Your task to perform on an android device: Open Google Maps and go to "Timeline" Image 0: 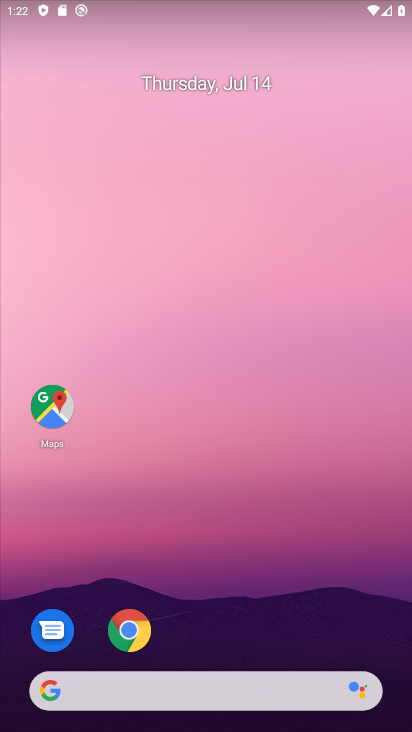
Step 0: click (32, 402)
Your task to perform on an android device: Open Google Maps and go to "Timeline" Image 1: 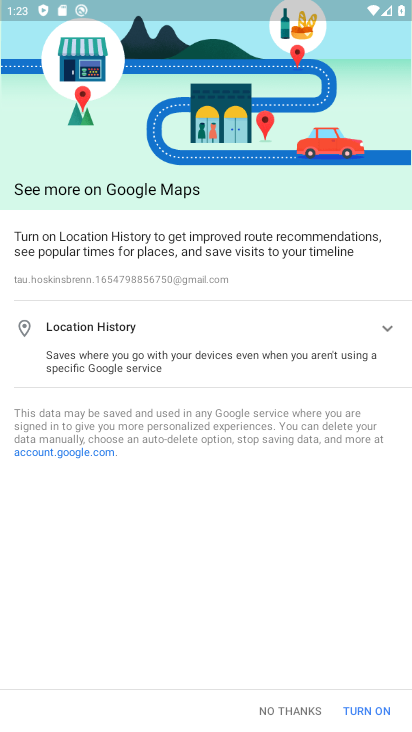
Step 1: click (275, 710)
Your task to perform on an android device: Open Google Maps and go to "Timeline" Image 2: 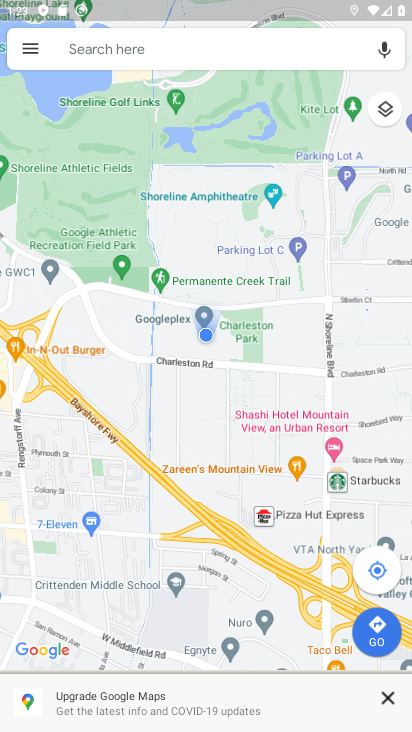
Step 2: click (25, 47)
Your task to perform on an android device: Open Google Maps and go to "Timeline" Image 3: 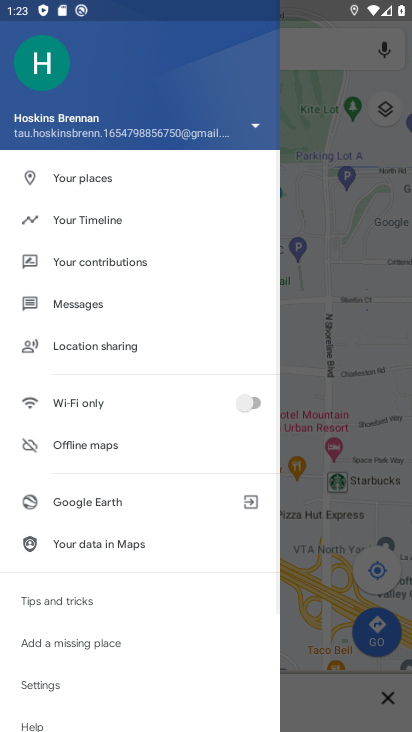
Step 3: click (106, 216)
Your task to perform on an android device: Open Google Maps and go to "Timeline" Image 4: 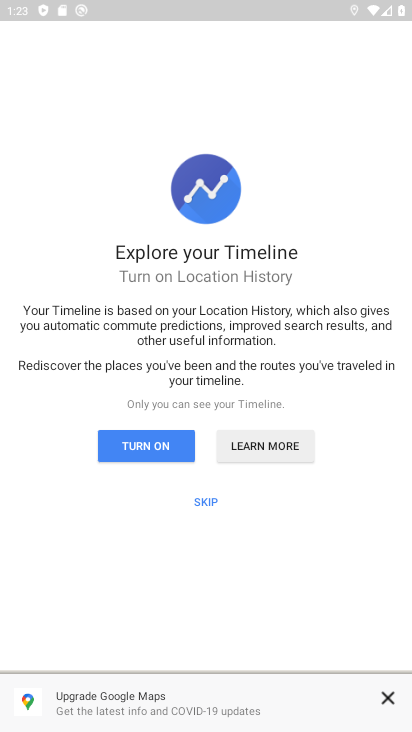
Step 4: click (202, 497)
Your task to perform on an android device: Open Google Maps and go to "Timeline" Image 5: 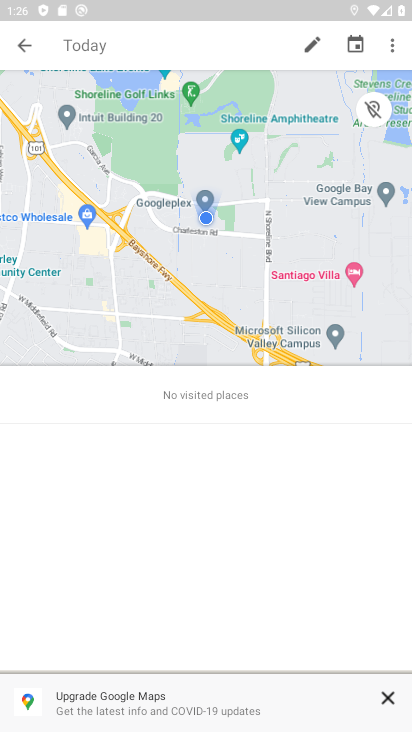
Step 5: task complete